Your task to perform on an android device: Open Google Chrome Image 0: 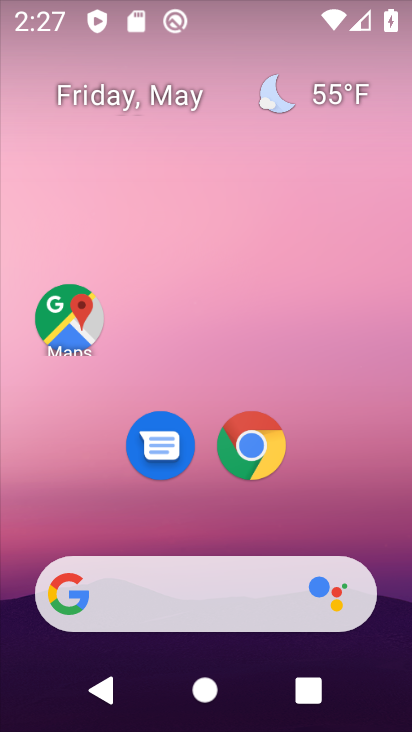
Step 0: drag from (334, 484) to (340, 103)
Your task to perform on an android device: Open Google Chrome Image 1: 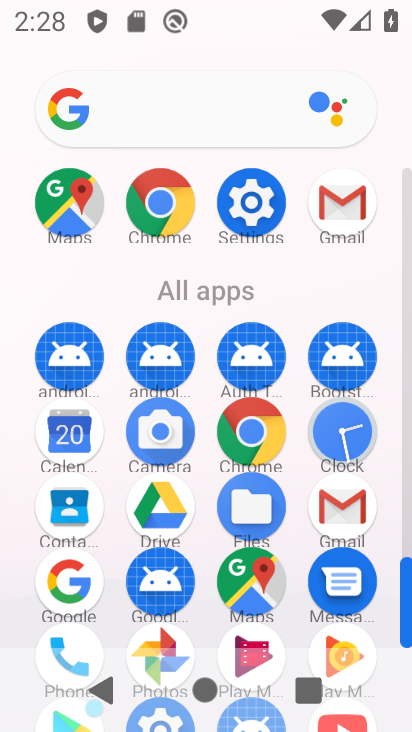
Step 1: click (269, 440)
Your task to perform on an android device: Open Google Chrome Image 2: 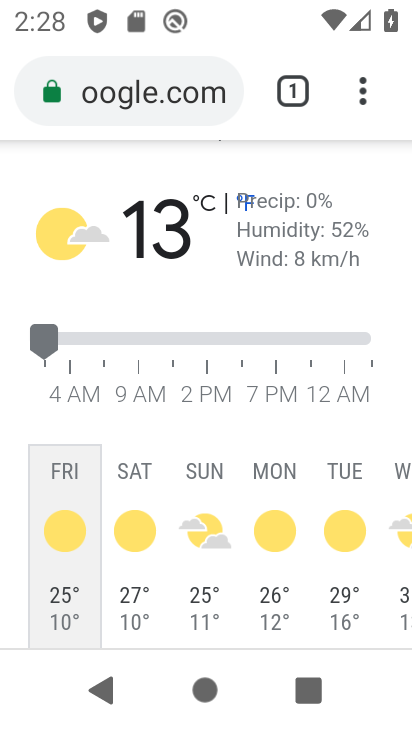
Step 2: task complete